Your task to perform on an android device: Open CNN.com Image 0: 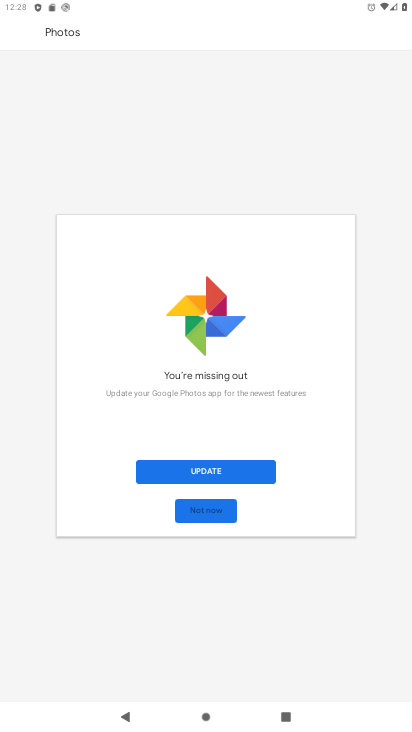
Step 0: press back button
Your task to perform on an android device: Open CNN.com Image 1: 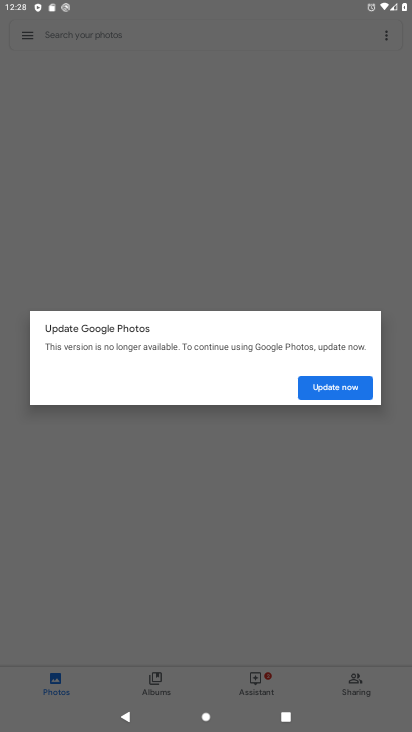
Step 1: press home button
Your task to perform on an android device: Open CNN.com Image 2: 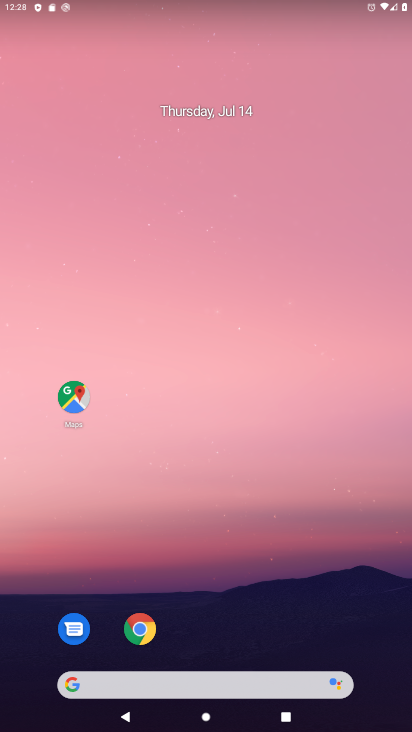
Step 2: click (133, 622)
Your task to perform on an android device: Open CNN.com Image 3: 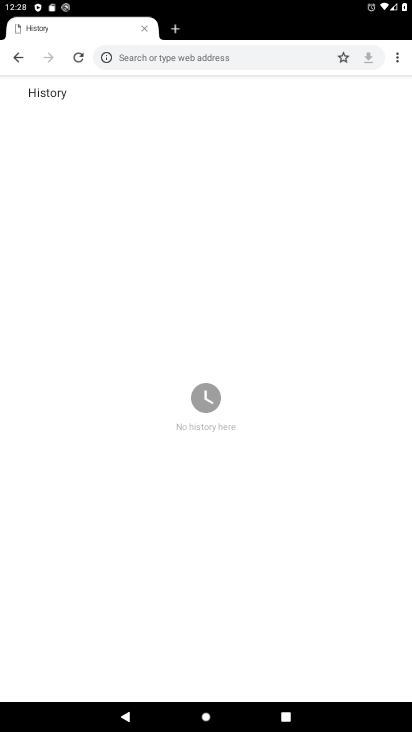
Step 3: click (156, 49)
Your task to perform on an android device: Open CNN.com Image 4: 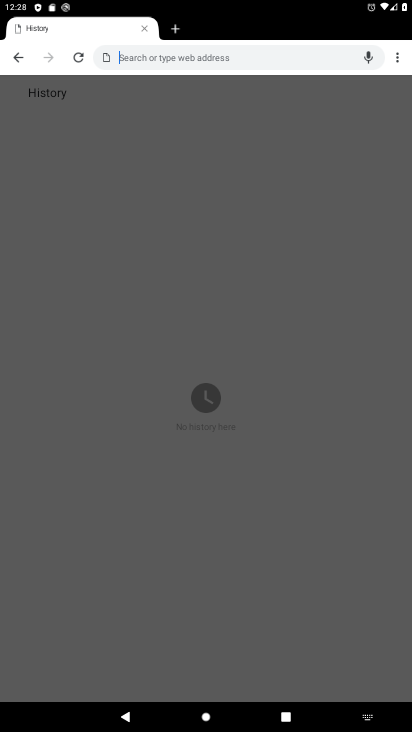
Step 4: click (144, 26)
Your task to perform on an android device: Open CNN.com Image 5: 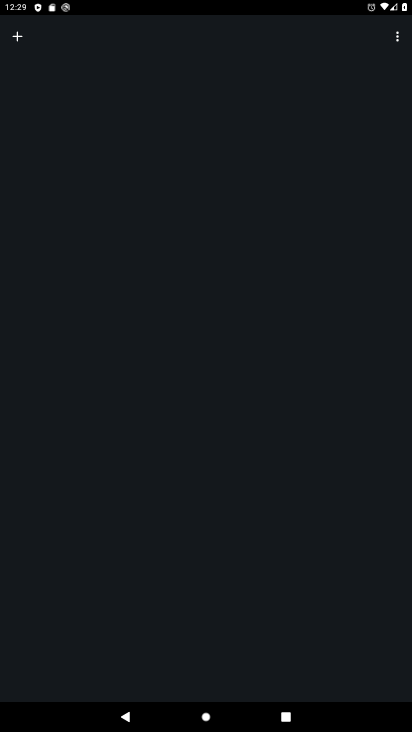
Step 5: click (15, 33)
Your task to perform on an android device: Open CNN.com Image 6: 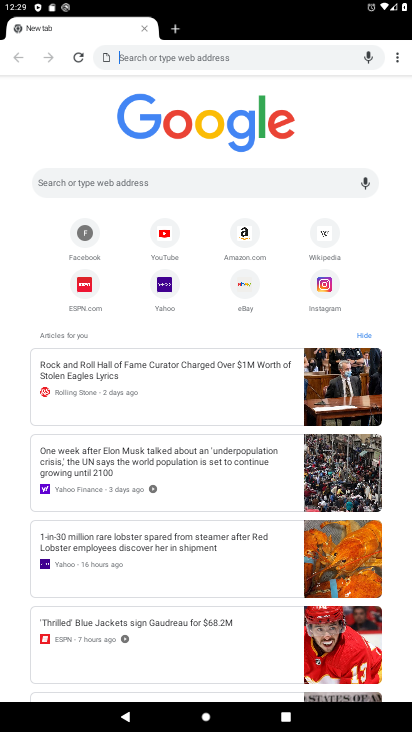
Step 6: click (177, 183)
Your task to perform on an android device: Open CNN.com Image 7: 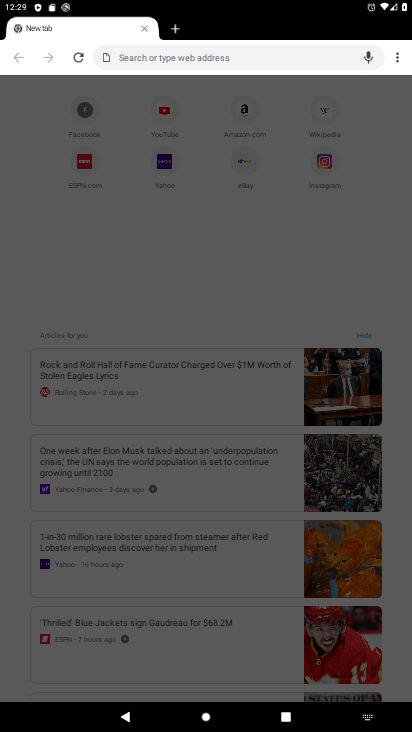
Step 7: type "cnn"
Your task to perform on an android device: Open CNN.com Image 8: 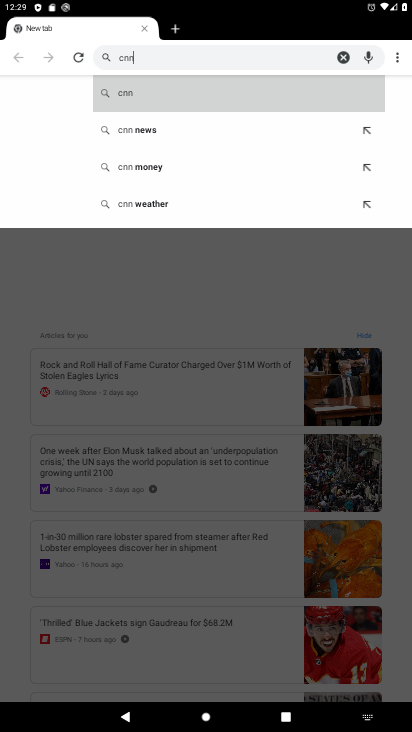
Step 8: click (135, 102)
Your task to perform on an android device: Open CNN.com Image 9: 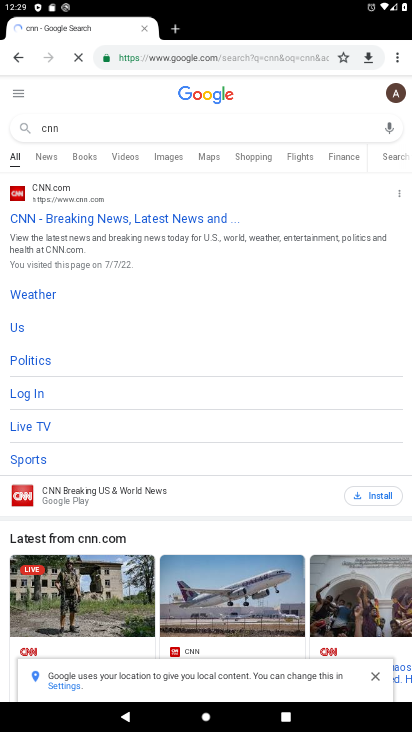
Step 9: click (62, 227)
Your task to perform on an android device: Open CNN.com Image 10: 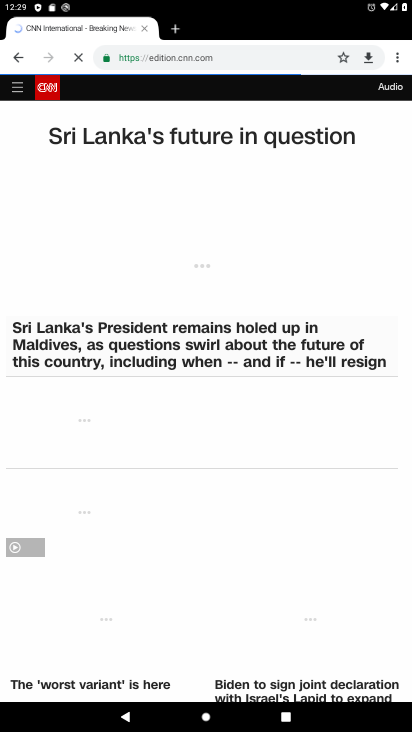
Step 10: task complete